Your task to perform on an android device: What's the weather going to be tomorrow? Image 0: 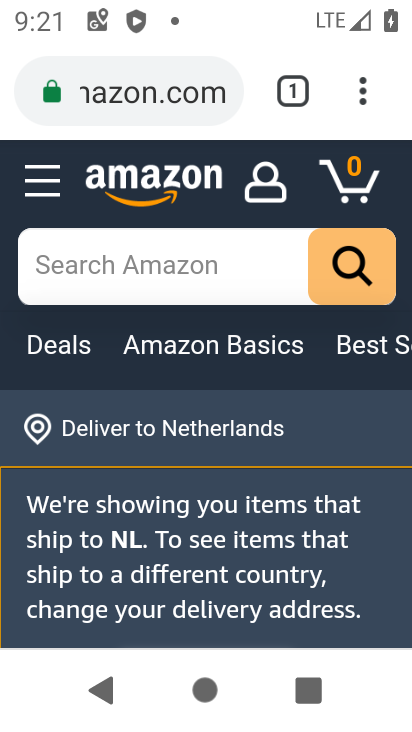
Step 0: press home button
Your task to perform on an android device: What's the weather going to be tomorrow? Image 1: 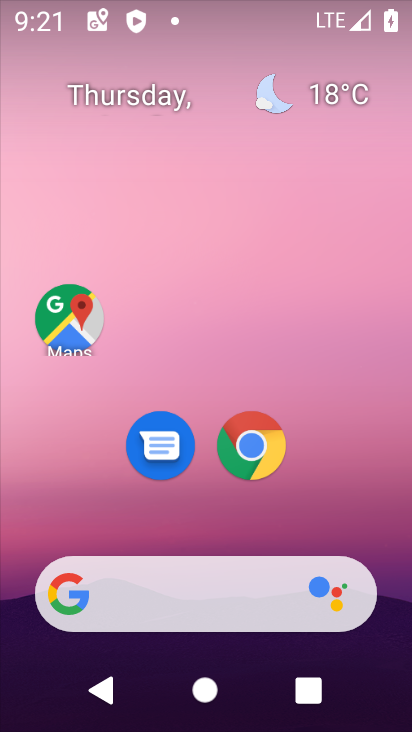
Step 1: drag from (394, 547) to (286, 162)
Your task to perform on an android device: What's the weather going to be tomorrow? Image 2: 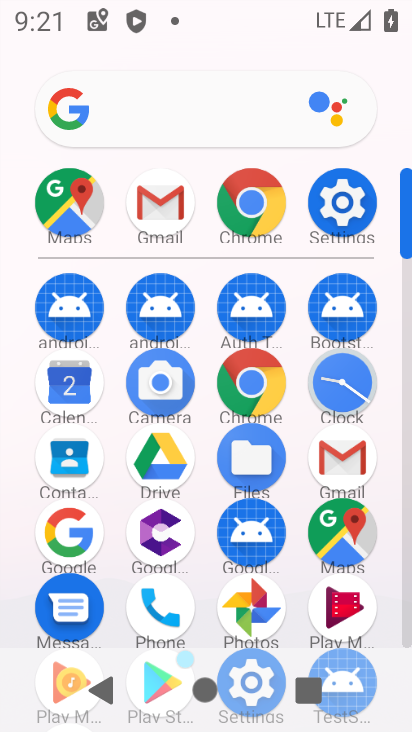
Step 2: click (251, 193)
Your task to perform on an android device: What's the weather going to be tomorrow? Image 3: 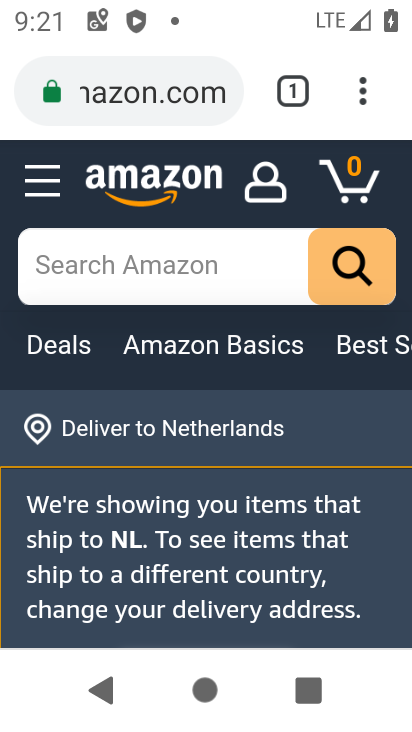
Step 3: click (188, 101)
Your task to perform on an android device: What's the weather going to be tomorrow? Image 4: 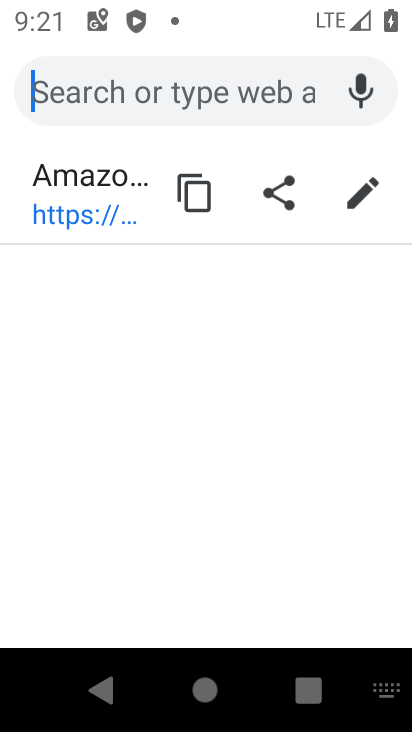
Step 4: type "What's the weather going to be tomorrow?"
Your task to perform on an android device: What's the weather going to be tomorrow? Image 5: 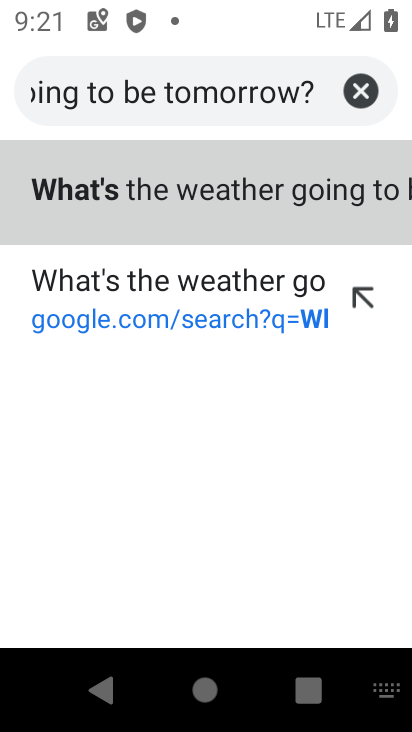
Step 5: click (272, 186)
Your task to perform on an android device: What's the weather going to be tomorrow? Image 6: 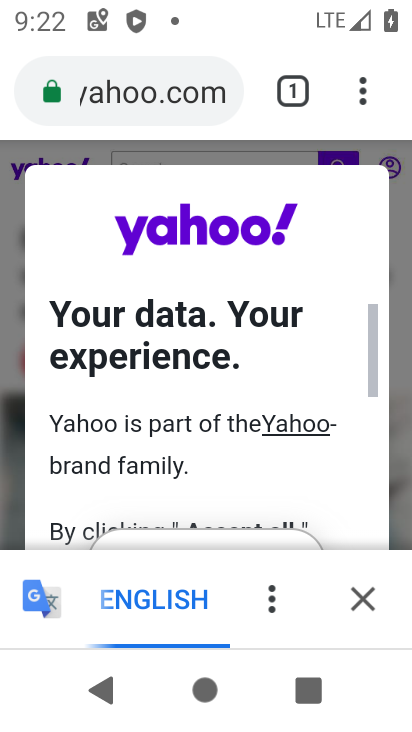
Step 6: click (361, 596)
Your task to perform on an android device: What's the weather going to be tomorrow? Image 7: 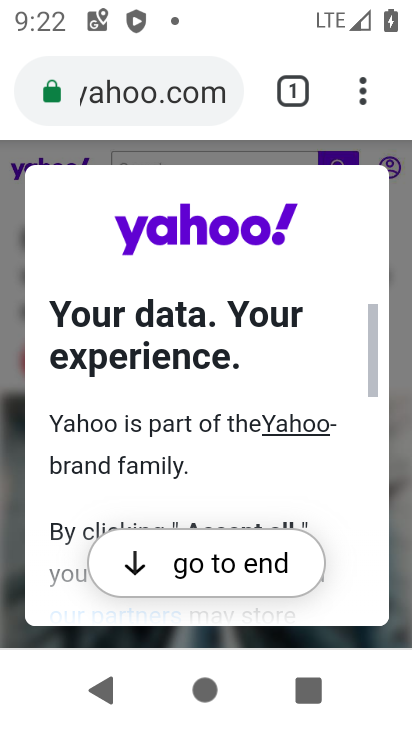
Step 7: click (293, 559)
Your task to perform on an android device: What's the weather going to be tomorrow? Image 8: 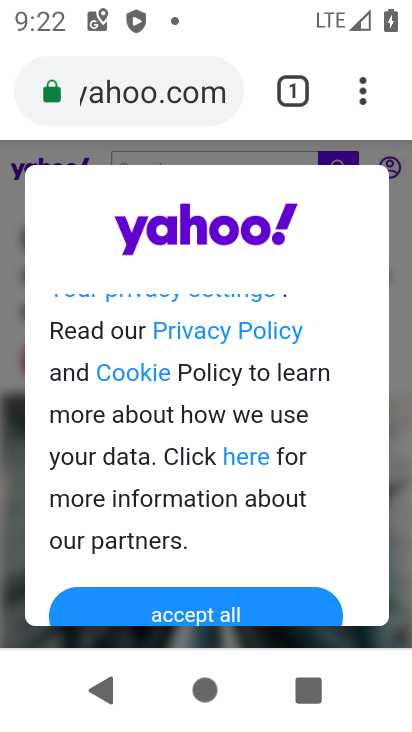
Step 8: click (302, 603)
Your task to perform on an android device: What's the weather going to be tomorrow? Image 9: 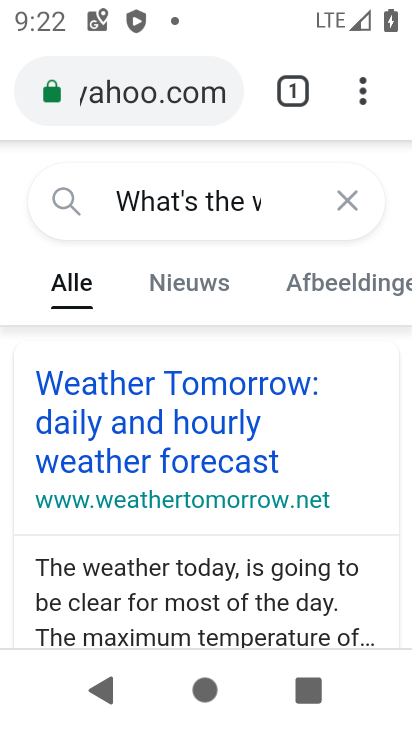
Step 9: click (158, 403)
Your task to perform on an android device: What's the weather going to be tomorrow? Image 10: 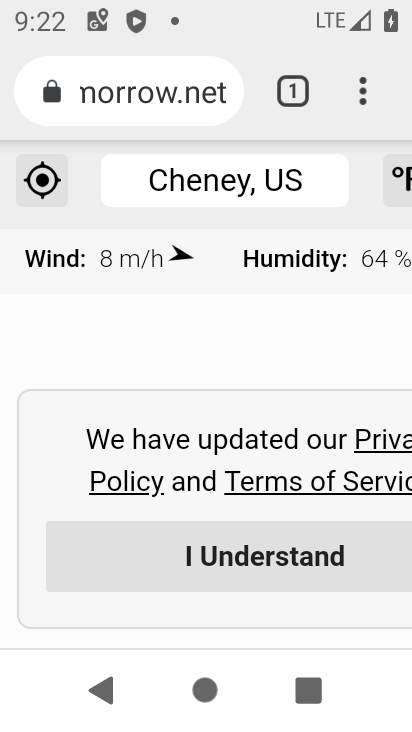
Step 10: click (363, 565)
Your task to perform on an android device: What's the weather going to be tomorrow? Image 11: 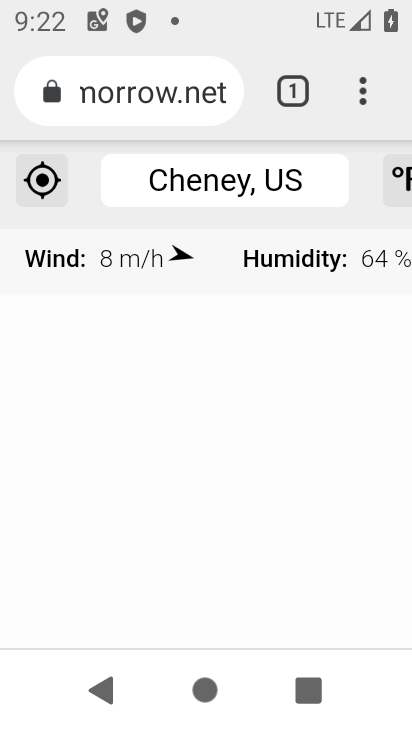
Step 11: task complete